Your task to perform on an android device: turn pop-ups off in chrome Image 0: 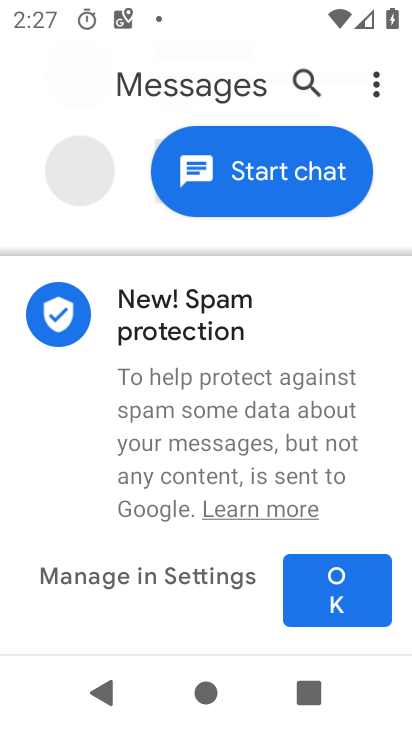
Step 0: press home button
Your task to perform on an android device: turn pop-ups off in chrome Image 1: 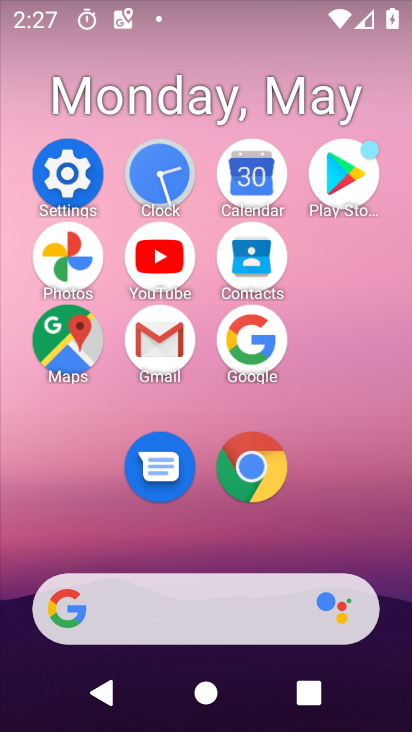
Step 1: click (254, 455)
Your task to perform on an android device: turn pop-ups off in chrome Image 2: 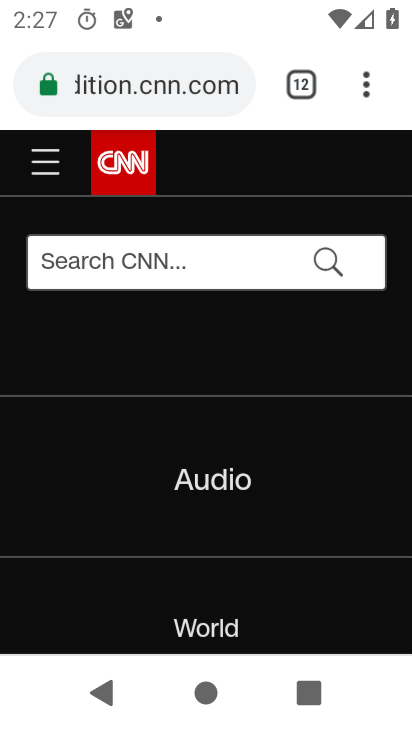
Step 2: click (373, 101)
Your task to perform on an android device: turn pop-ups off in chrome Image 3: 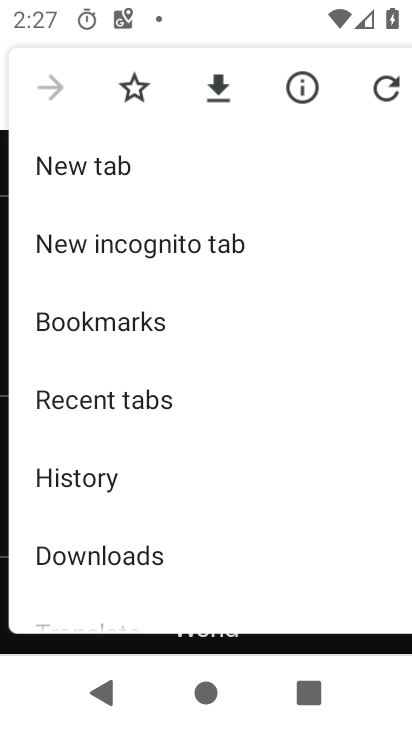
Step 3: drag from (275, 492) to (306, 158)
Your task to perform on an android device: turn pop-ups off in chrome Image 4: 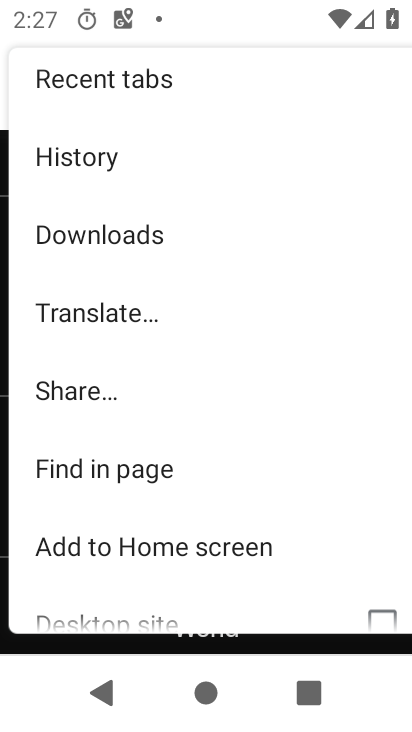
Step 4: drag from (151, 519) to (209, 184)
Your task to perform on an android device: turn pop-ups off in chrome Image 5: 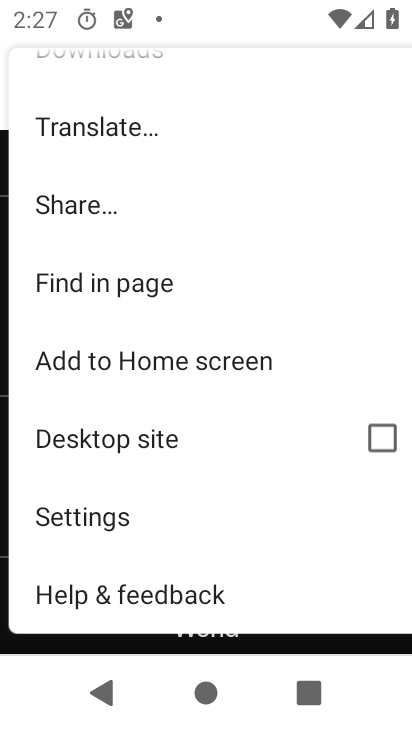
Step 5: click (151, 505)
Your task to perform on an android device: turn pop-ups off in chrome Image 6: 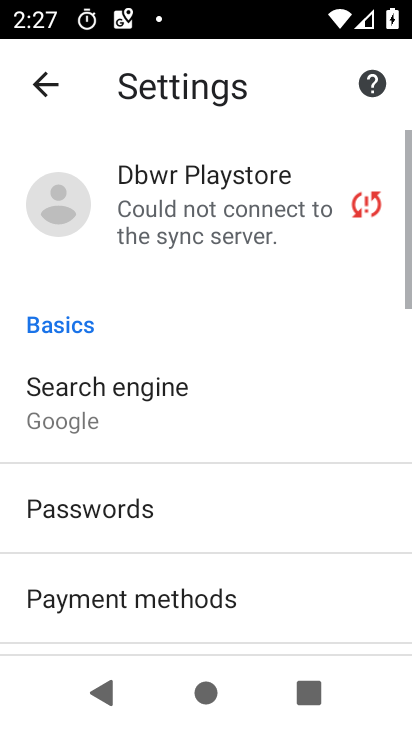
Step 6: drag from (152, 477) to (204, 166)
Your task to perform on an android device: turn pop-ups off in chrome Image 7: 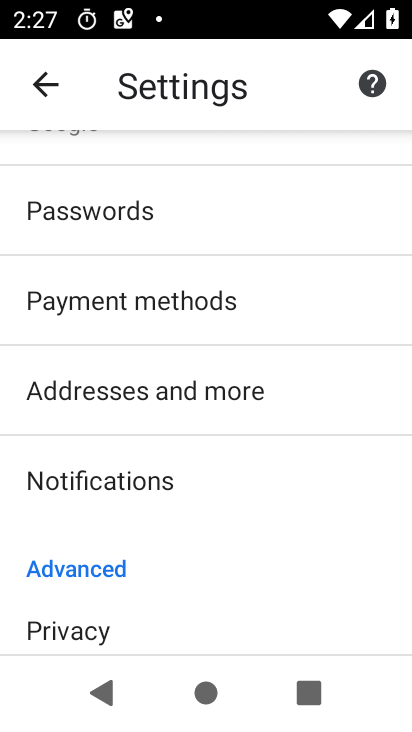
Step 7: drag from (155, 566) to (210, 136)
Your task to perform on an android device: turn pop-ups off in chrome Image 8: 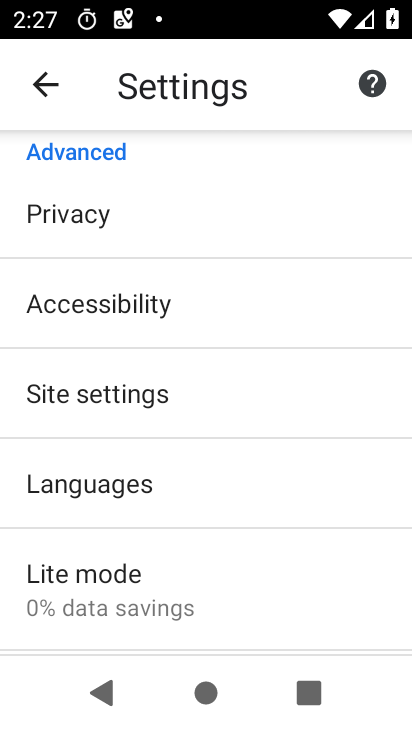
Step 8: click (216, 418)
Your task to perform on an android device: turn pop-ups off in chrome Image 9: 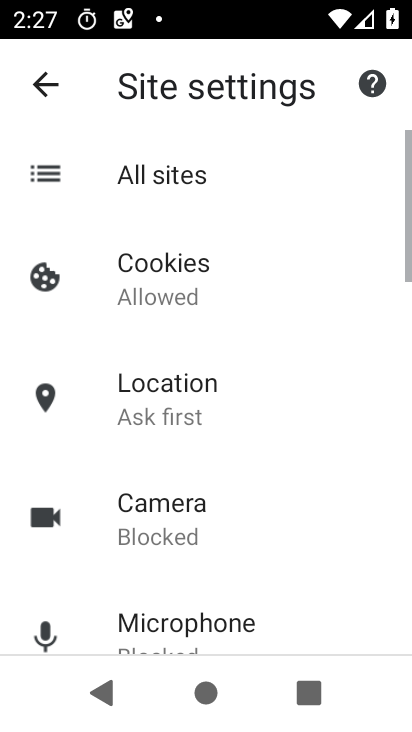
Step 9: drag from (197, 549) to (228, 236)
Your task to perform on an android device: turn pop-ups off in chrome Image 10: 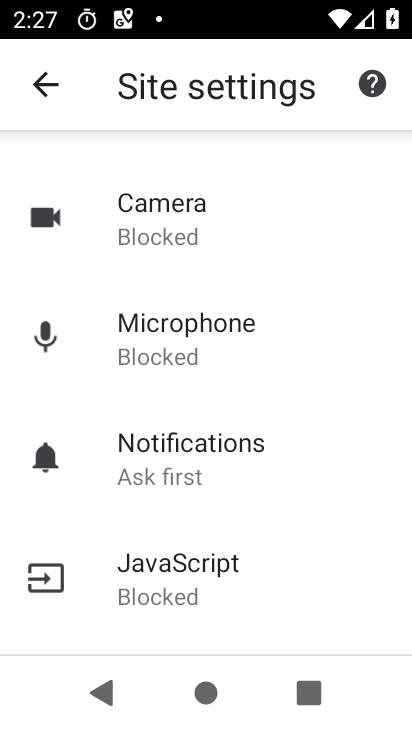
Step 10: drag from (251, 503) to (272, 260)
Your task to perform on an android device: turn pop-ups off in chrome Image 11: 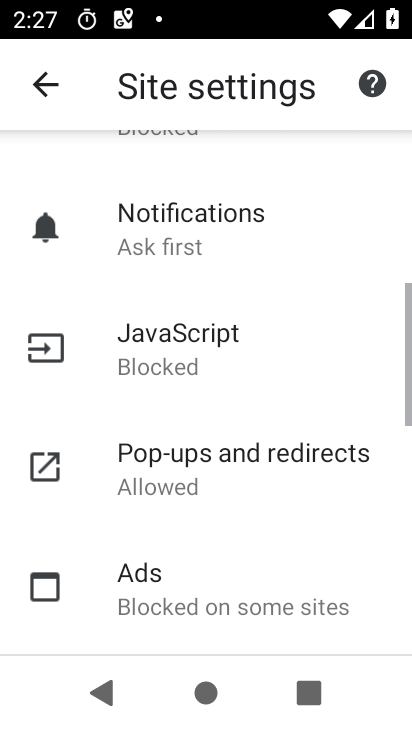
Step 11: click (263, 458)
Your task to perform on an android device: turn pop-ups off in chrome Image 12: 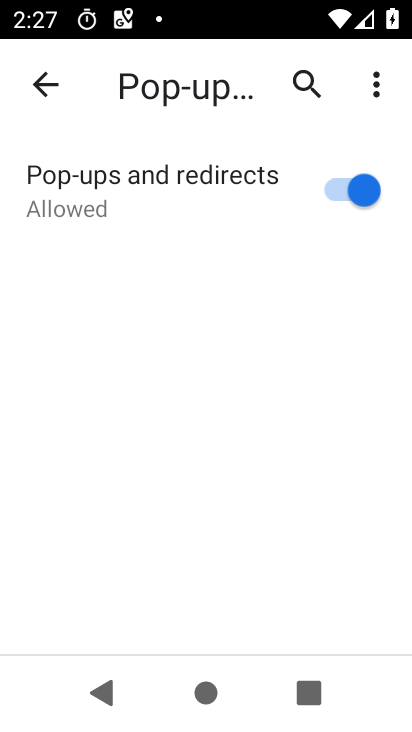
Step 12: click (375, 181)
Your task to perform on an android device: turn pop-ups off in chrome Image 13: 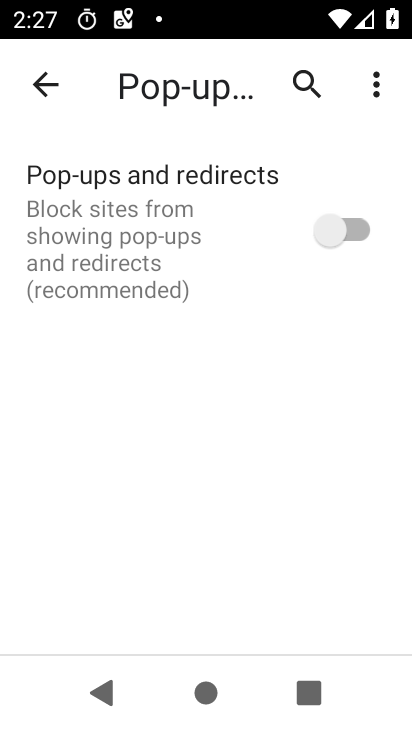
Step 13: task complete